Your task to perform on an android device: Open calendar and show me the fourth week of next month Image 0: 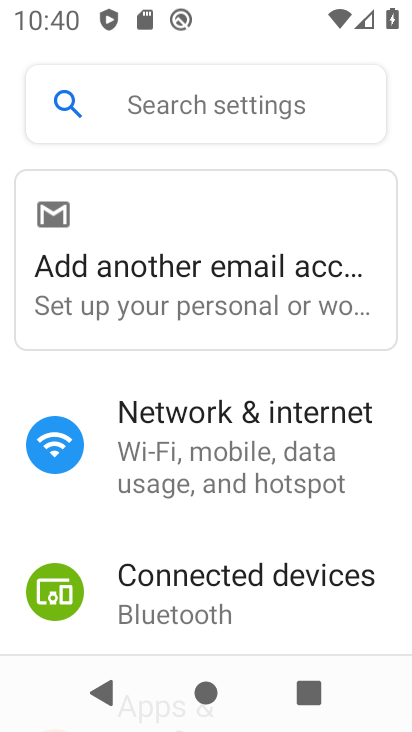
Step 0: press home button
Your task to perform on an android device: Open calendar and show me the fourth week of next month Image 1: 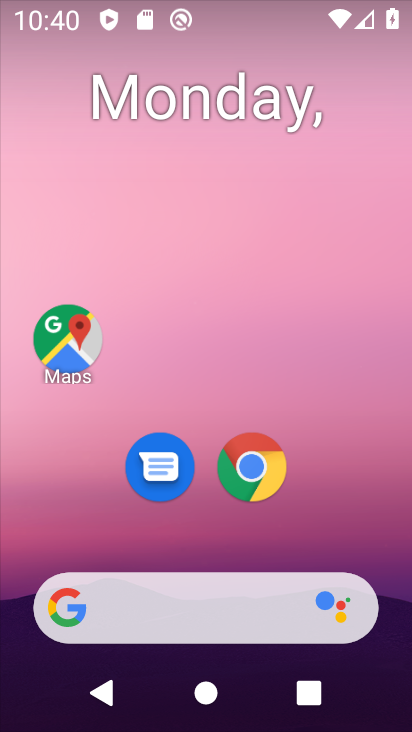
Step 1: drag from (108, 585) to (213, 103)
Your task to perform on an android device: Open calendar and show me the fourth week of next month Image 2: 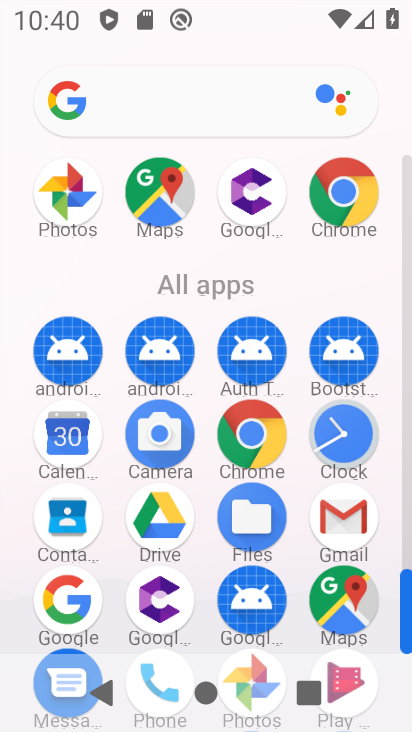
Step 2: click (61, 437)
Your task to perform on an android device: Open calendar and show me the fourth week of next month Image 3: 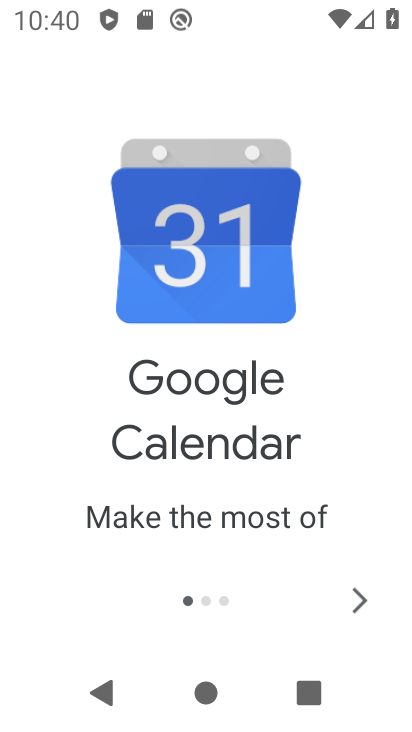
Step 3: click (356, 616)
Your task to perform on an android device: Open calendar and show me the fourth week of next month Image 4: 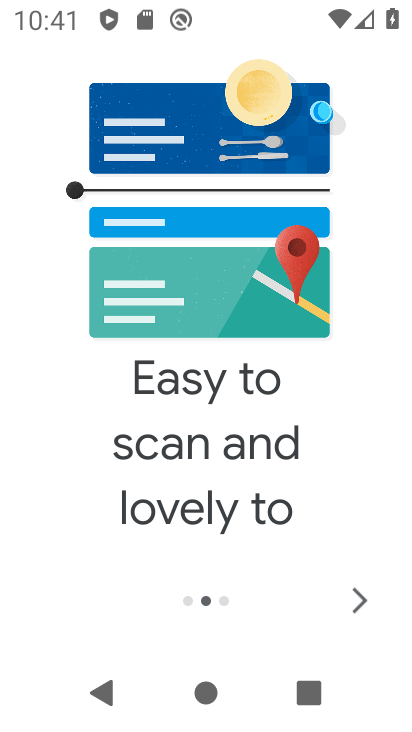
Step 4: click (349, 630)
Your task to perform on an android device: Open calendar and show me the fourth week of next month Image 5: 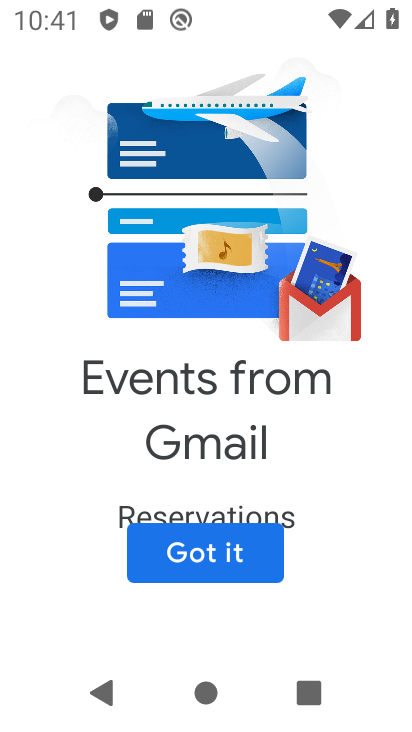
Step 5: click (252, 577)
Your task to perform on an android device: Open calendar and show me the fourth week of next month Image 6: 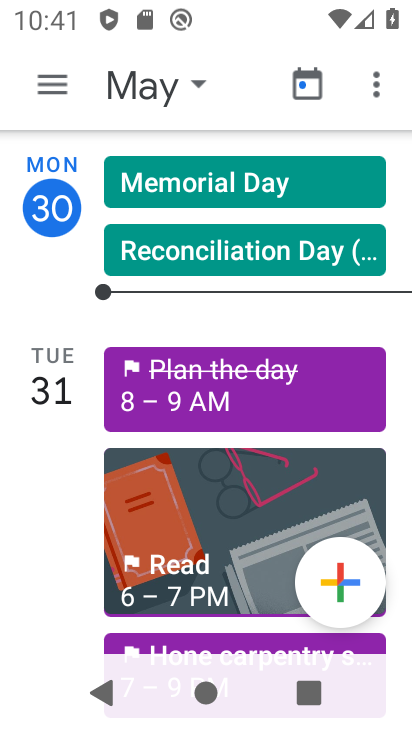
Step 6: click (173, 103)
Your task to perform on an android device: Open calendar and show me the fourth week of next month Image 7: 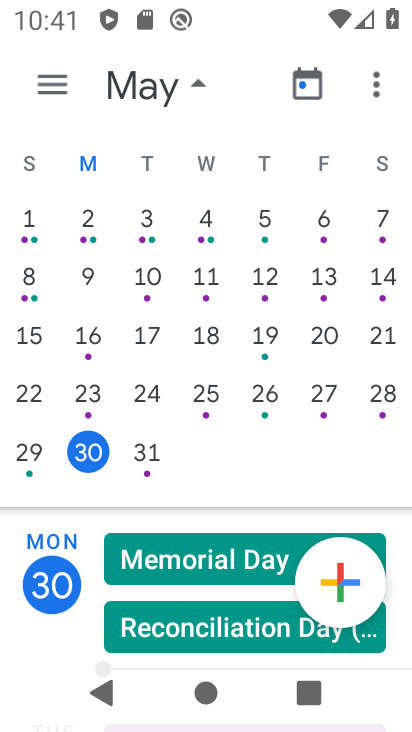
Step 7: drag from (343, 438) to (7, 424)
Your task to perform on an android device: Open calendar and show me the fourth week of next month Image 8: 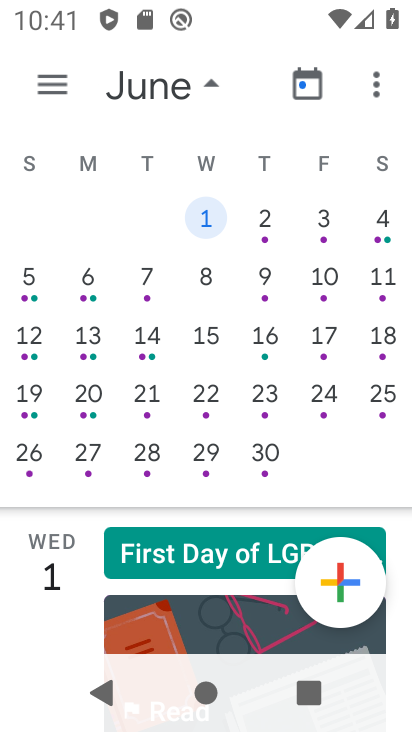
Step 8: click (38, 463)
Your task to perform on an android device: Open calendar and show me the fourth week of next month Image 9: 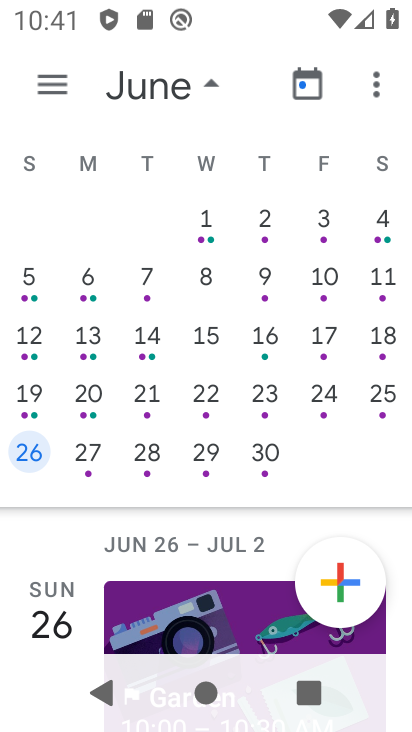
Step 9: click (88, 85)
Your task to perform on an android device: Open calendar and show me the fourth week of next month Image 10: 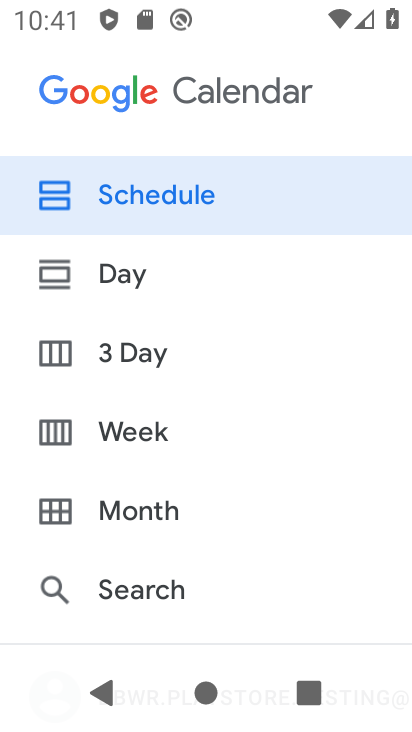
Step 10: click (160, 439)
Your task to perform on an android device: Open calendar and show me the fourth week of next month Image 11: 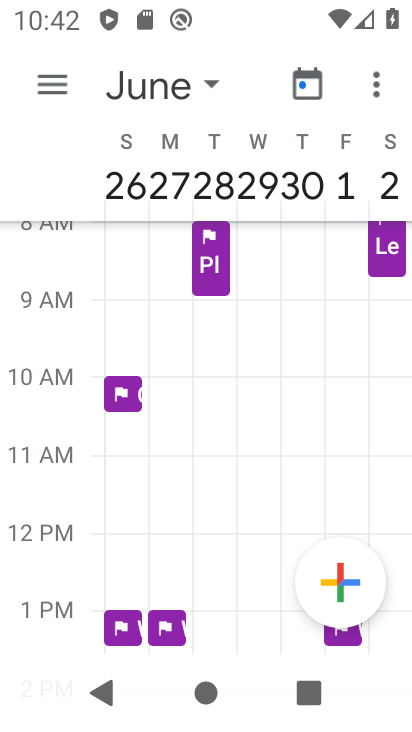
Step 11: task complete